Your task to perform on an android device: What's the latest video from GameSpot News? Image 0: 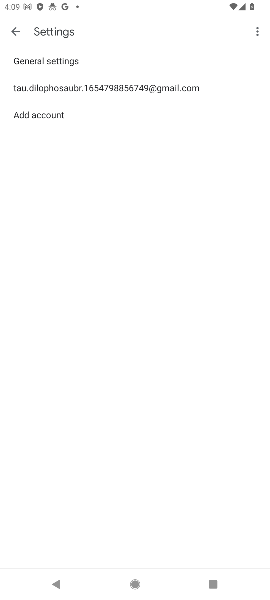
Step 0: press home button
Your task to perform on an android device: What's the latest video from GameSpot News? Image 1: 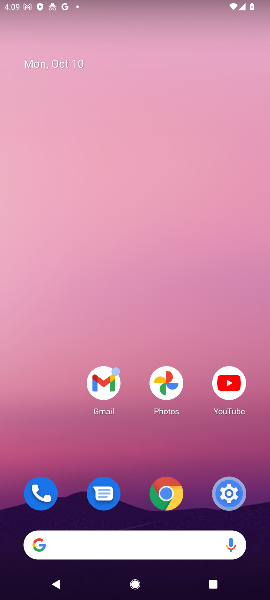
Step 1: click (173, 535)
Your task to perform on an android device: What's the latest video from GameSpot News? Image 2: 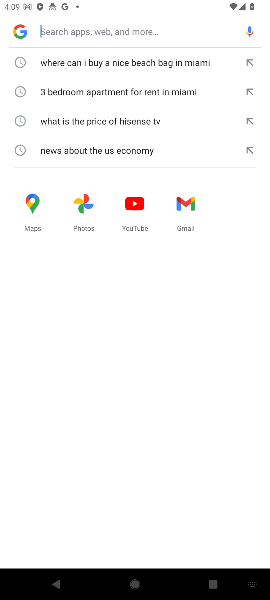
Step 2: type "What's the latest video from GameSpot News?"
Your task to perform on an android device: What's the latest video from GameSpot News? Image 3: 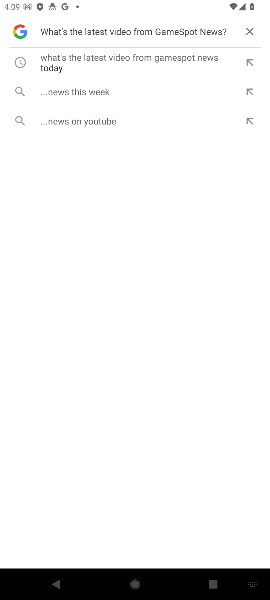
Step 3: click (155, 77)
Your task to perform on an android device: What's the latest video from GameSpot News? Image 4: 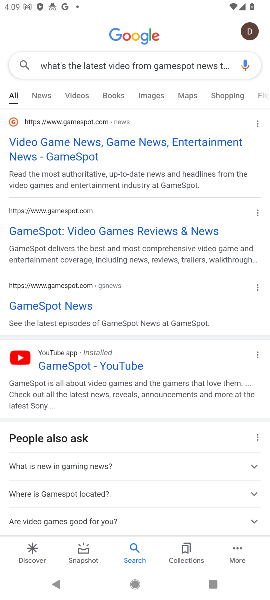
Step 4: task complete